Your task to perform on an android device: What's the weather? Image 0: 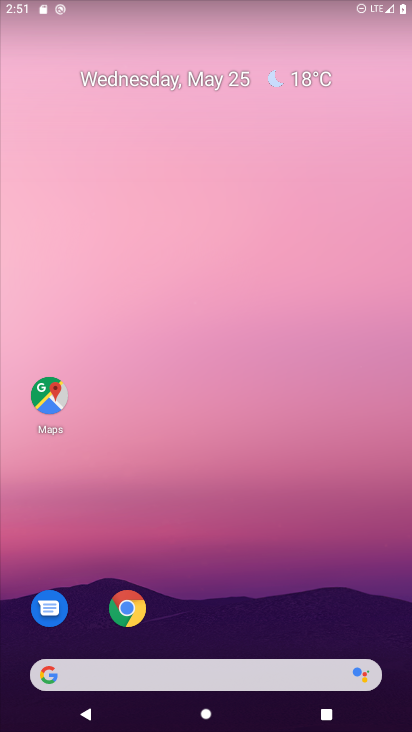
Step 0: click (303, 79)
Your task to perform on an android device: What's the weather? Image 1: 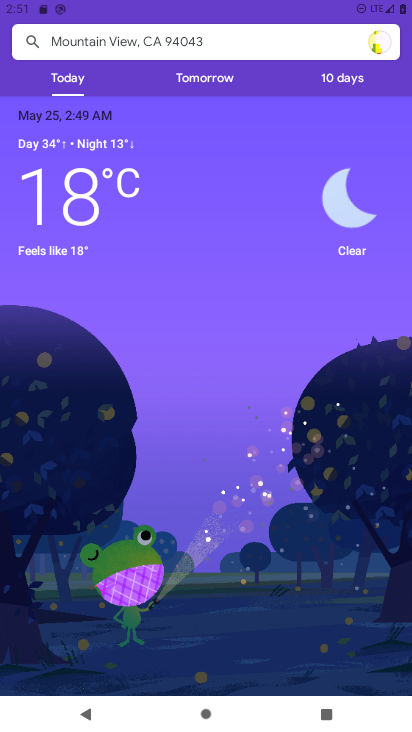
Step 1: task complete